Your task to perform on an android device: turn notification dots on Image 0: 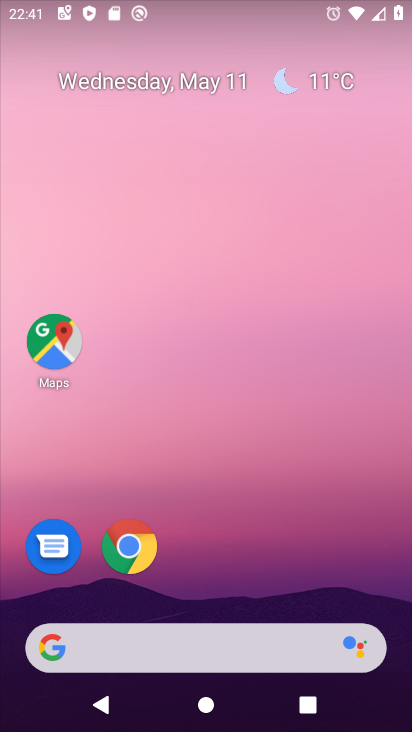
Step 0: drag from (401, 627) to (275, 71)
Your task to perform on an android device: turn notification dots on Image 1: 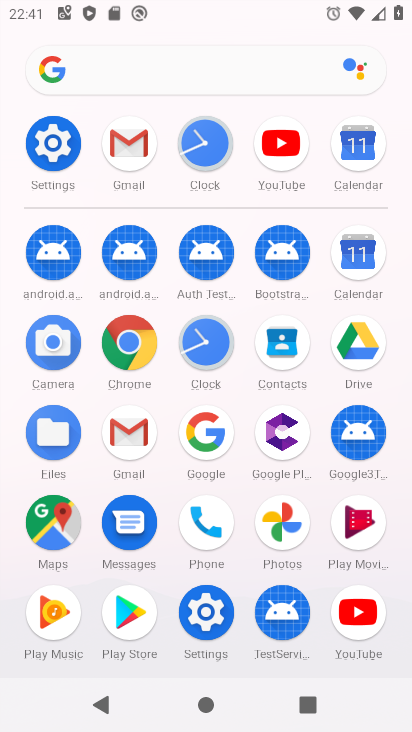
Step 1: click (204, 616)
Your task to perform on an android device: turn notification dots on Image 2: 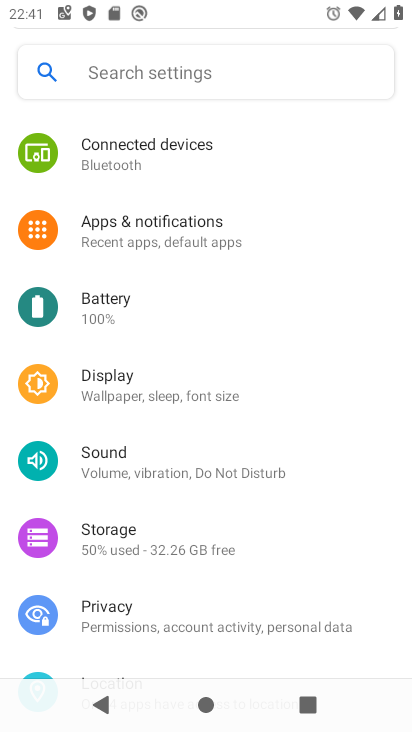
Step 2: click (132, 226)
Your task to perform on an android device: turn notification dots on Image 3: 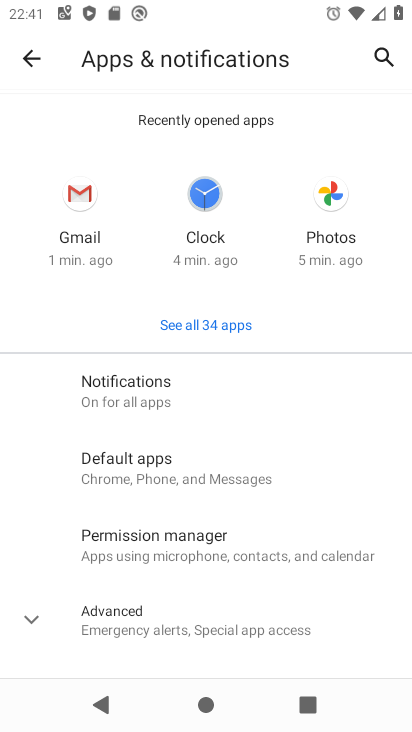
Step 3: click (132, 391)
Your task to perform on an android device: turn notification dots on Image 4: 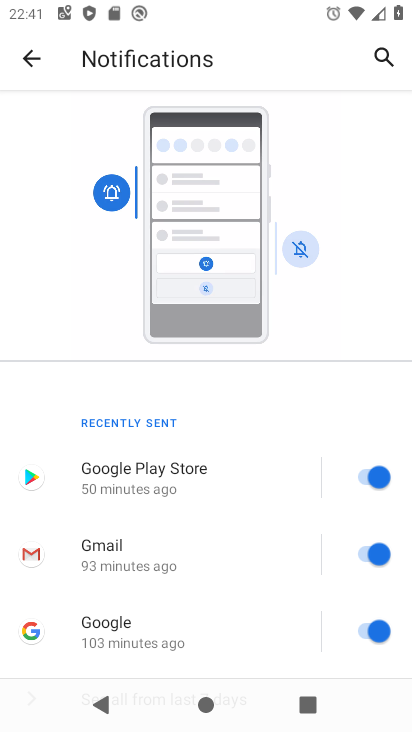
Step 4: drag from (299, 625) to (224, 201)
Your task to perform on an android device: turn notification dots on Image 5: 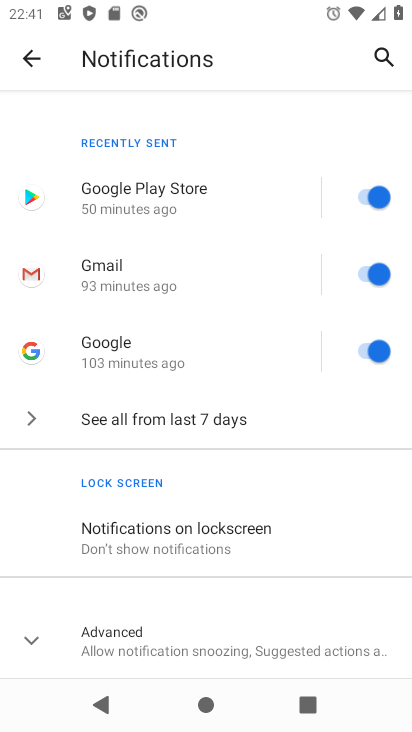
Step 5: click (56, 631)
Your task to perform on an android device: turn notification dots on Image 6: 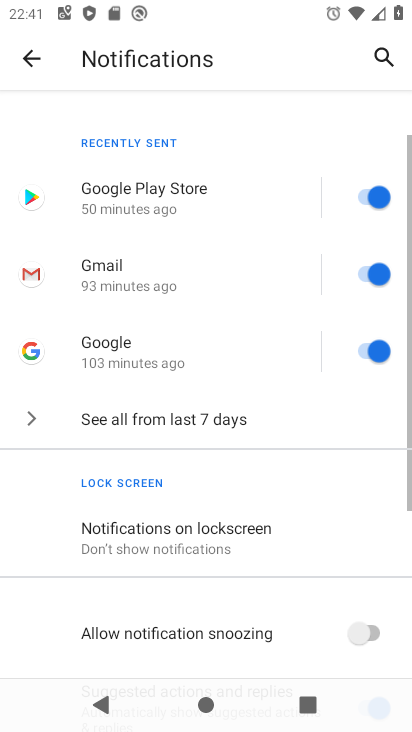
Step 6: drag from (329, 577) to (265, 141)
Your task to perform on an android device: turn notification dots on Image 7: 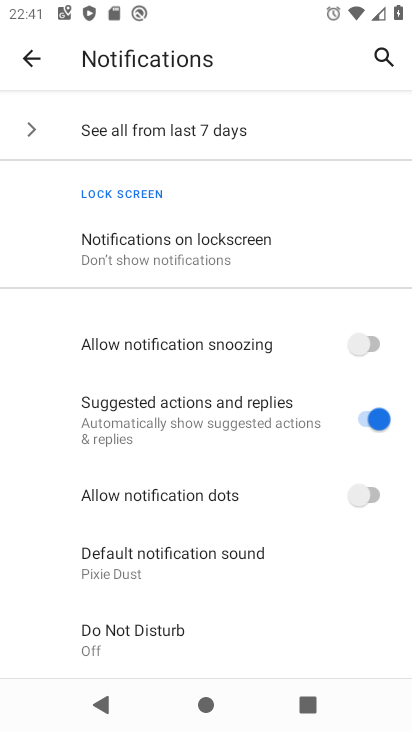
Step 7: click (371, 495)
Your task to perform on an android device: turn notification dots on Image 8: 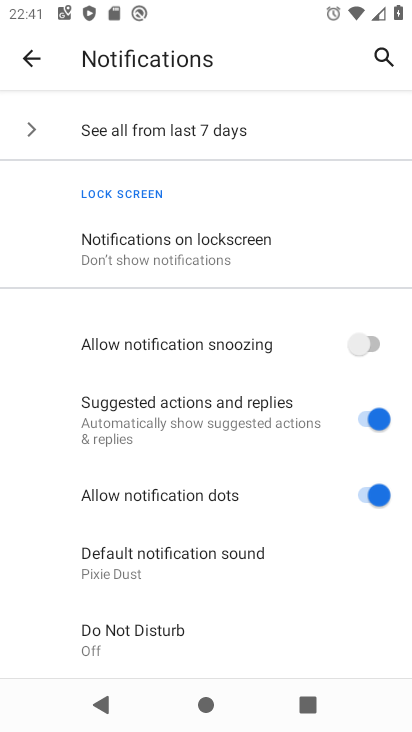
Step 8: task complete